Your task to perform on an android device: See recent photos Image 0: 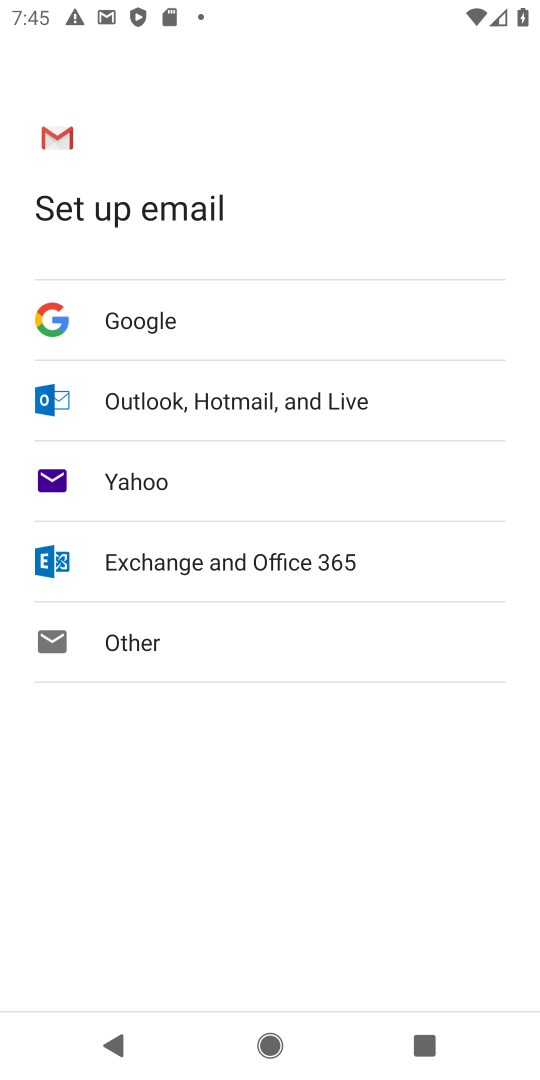
Step 0: drag from (245, 963) to (290, 673)
Your task to perform on an android device: See recent photos Image 1: 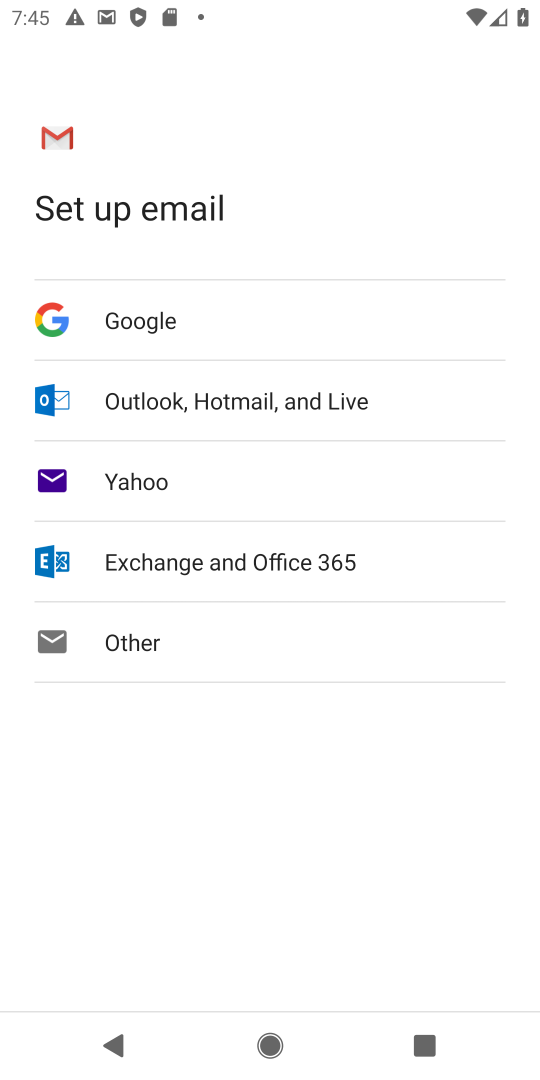
Step 1: press home button
Your task to perform on an android device: See recent photos Image 2: 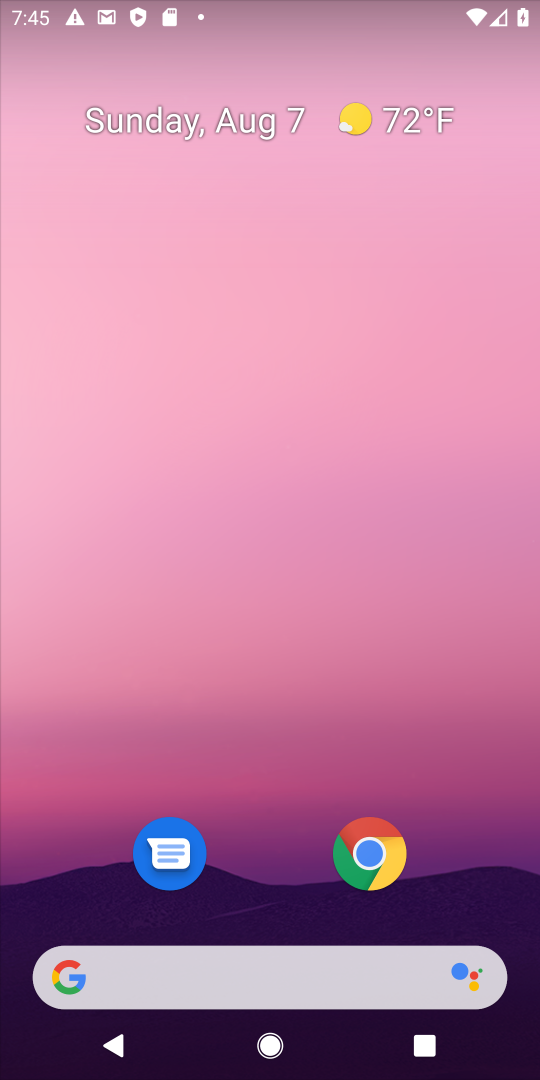
Step 2: drag from (266, 837) to (390, 182)
Your task to perform on an android device: See recent photos Image 3: 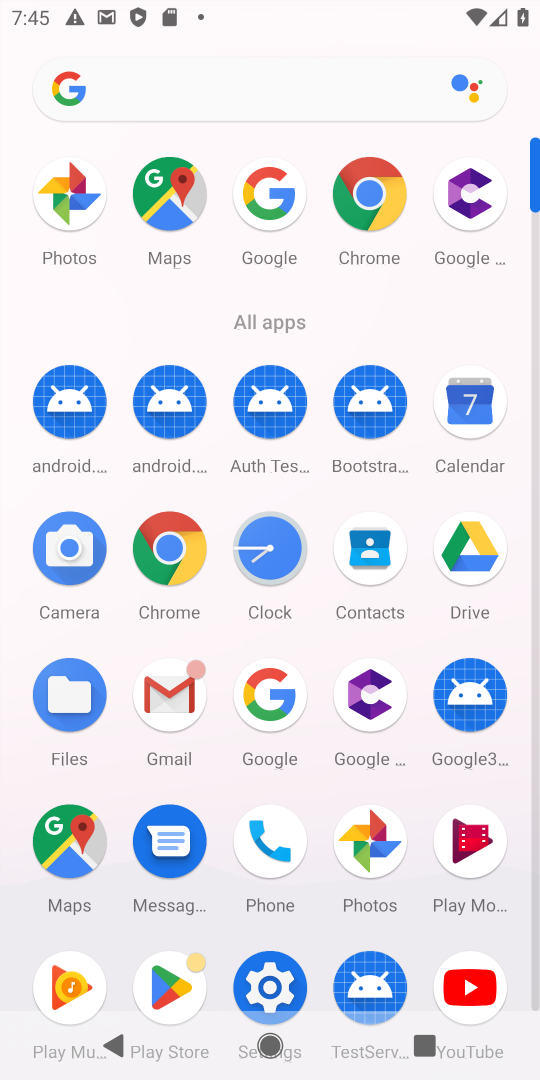
Step 3: drag from (188, 834) to (259, 421)
Your task to perform on an android device: See recent photos Image 4: 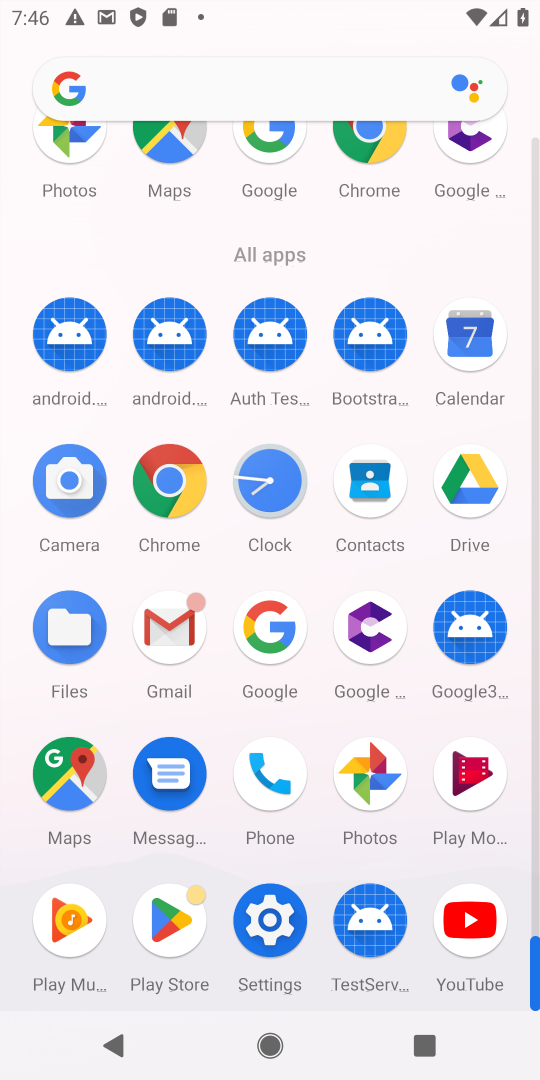
Step 4: click (374, 809)
Your task to perform on an android device: See recent photos Image 5: 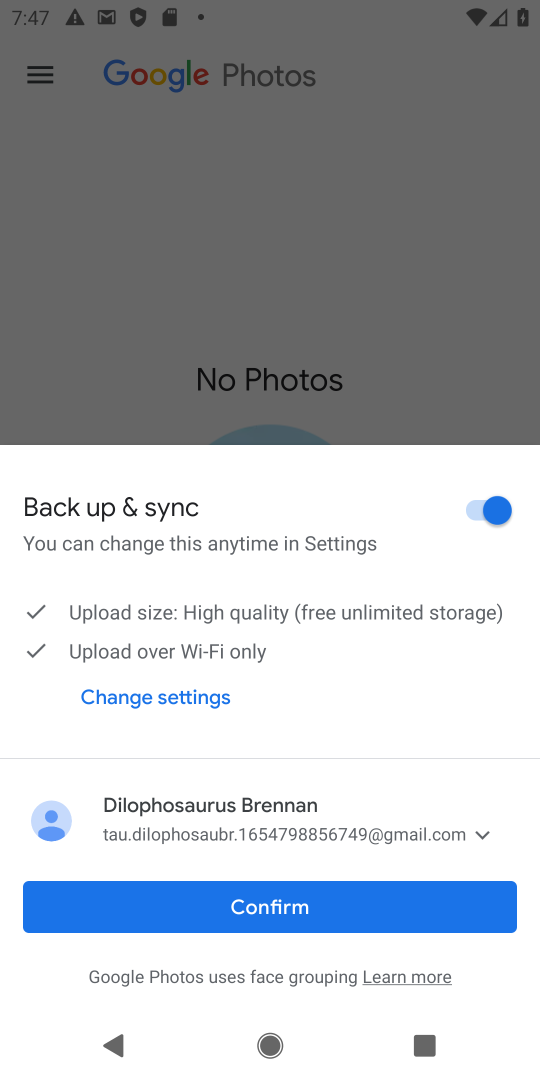
Step 5: click (407, 910)
Your task to perform on an android device: See recent photos Image 6: 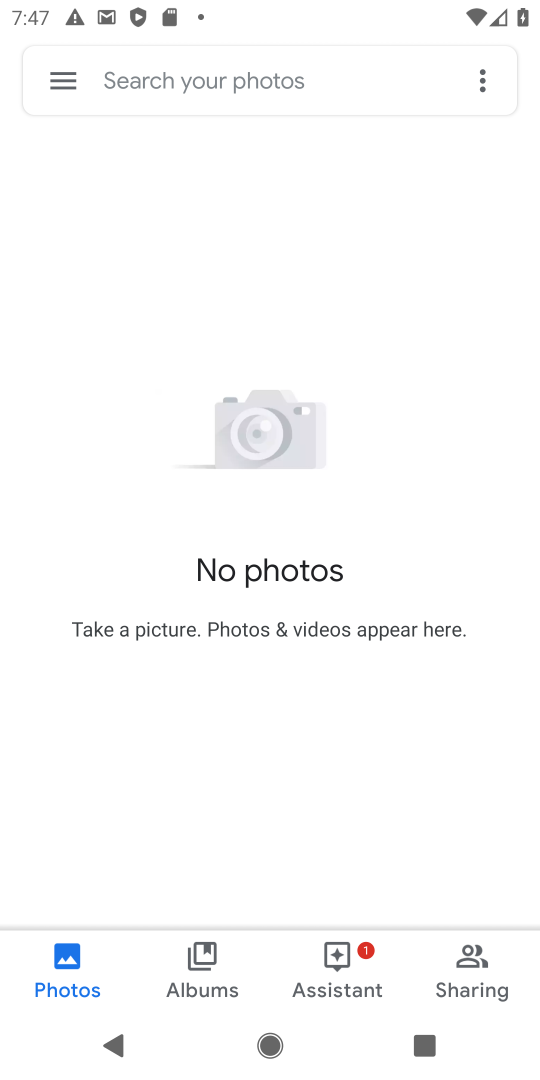
Step 6: click (64, 963)
Your task to perform on an android device: See recent photos Image 7: 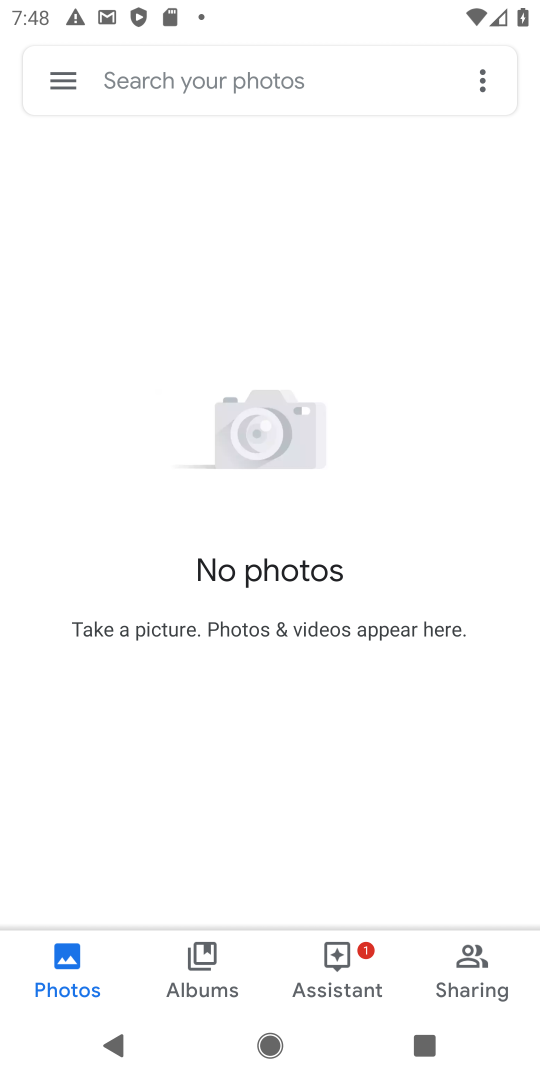
Step 7: task complete